Your task to perform on an android device: Check the best rated table lamp on Crate and Barrel Image 0: 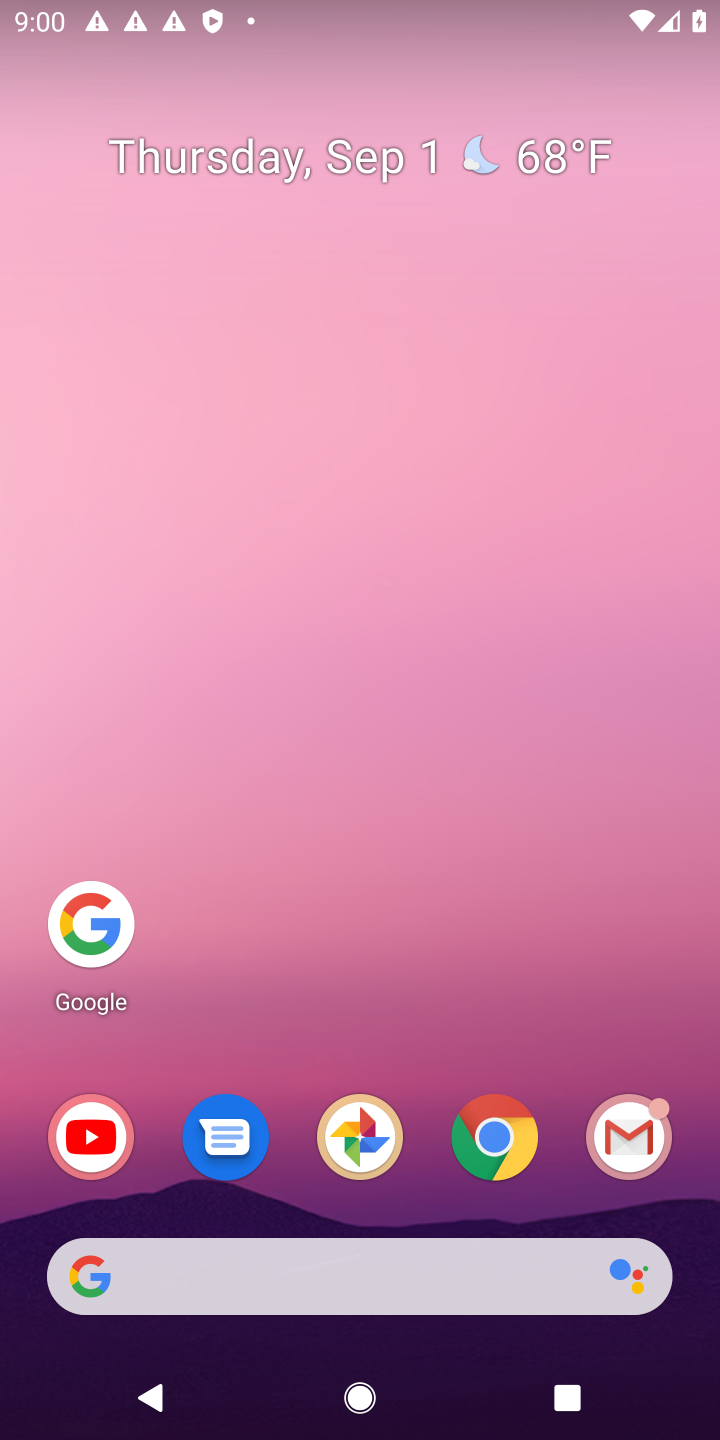
Step 0: click (78, 1279)
Your task to perform on an android device: Check the best rated table lamp on Crate and Barrel Image 1: 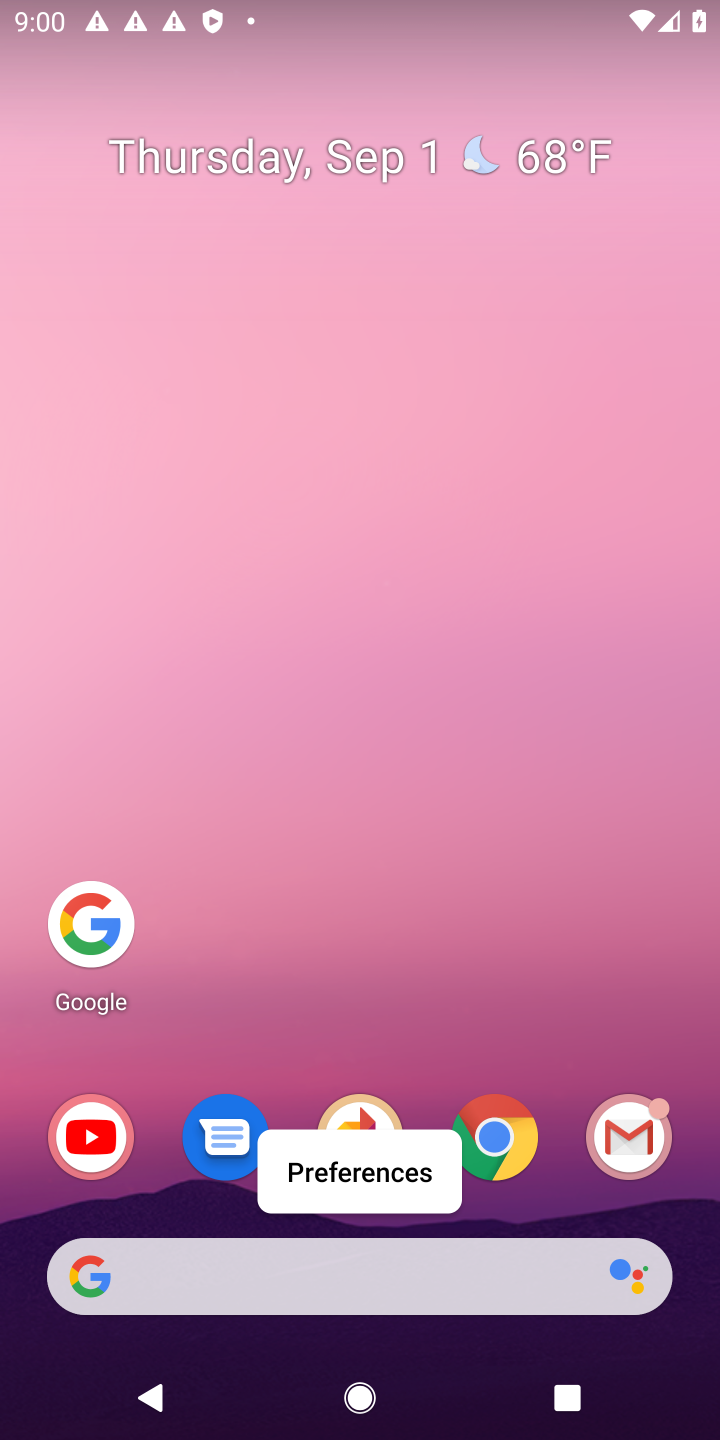
Step 1: click (90, 1263)
Your task to perform on an android device: Check the best rated table lamp on Crate and Barrel Image 2: 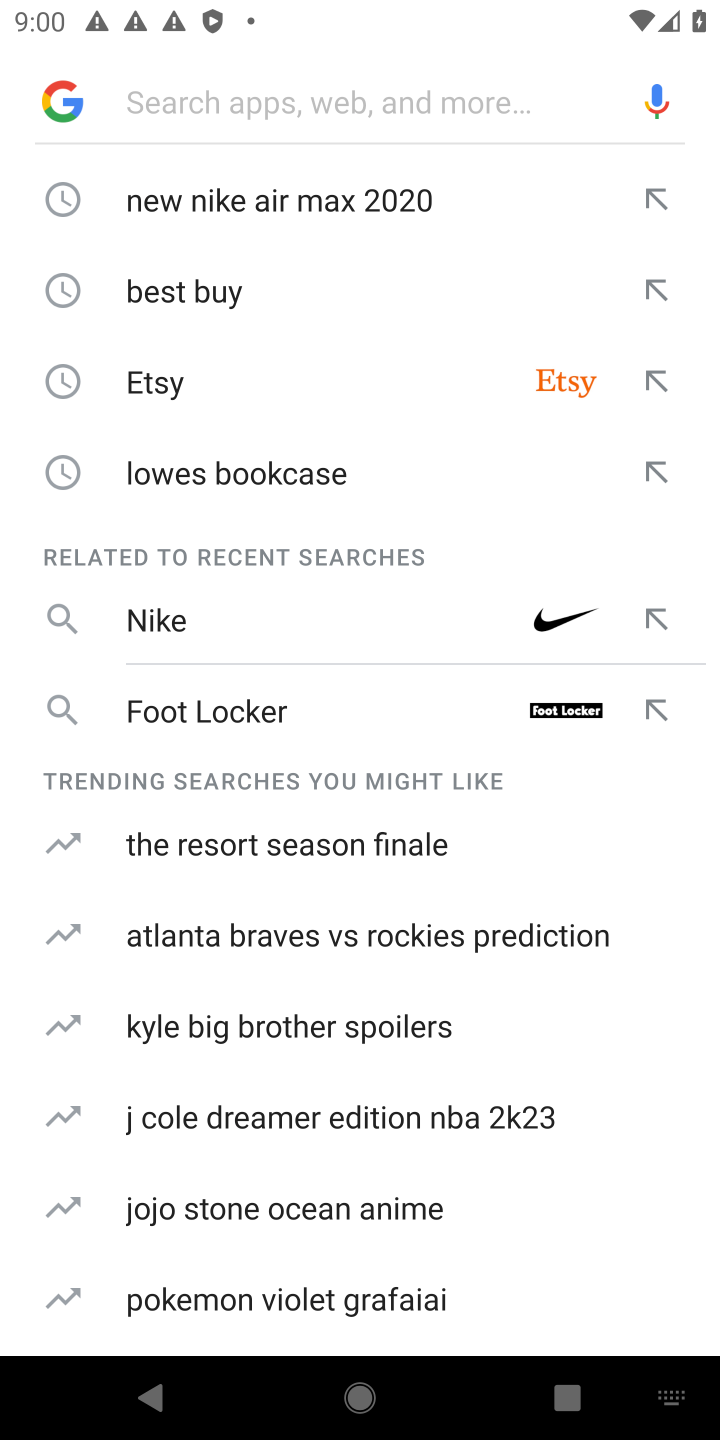
Step 2: type "Crate and Barrel"
Your task to perform on an android device: Check the best rated table lamp on Crate and Barrel Image 3: 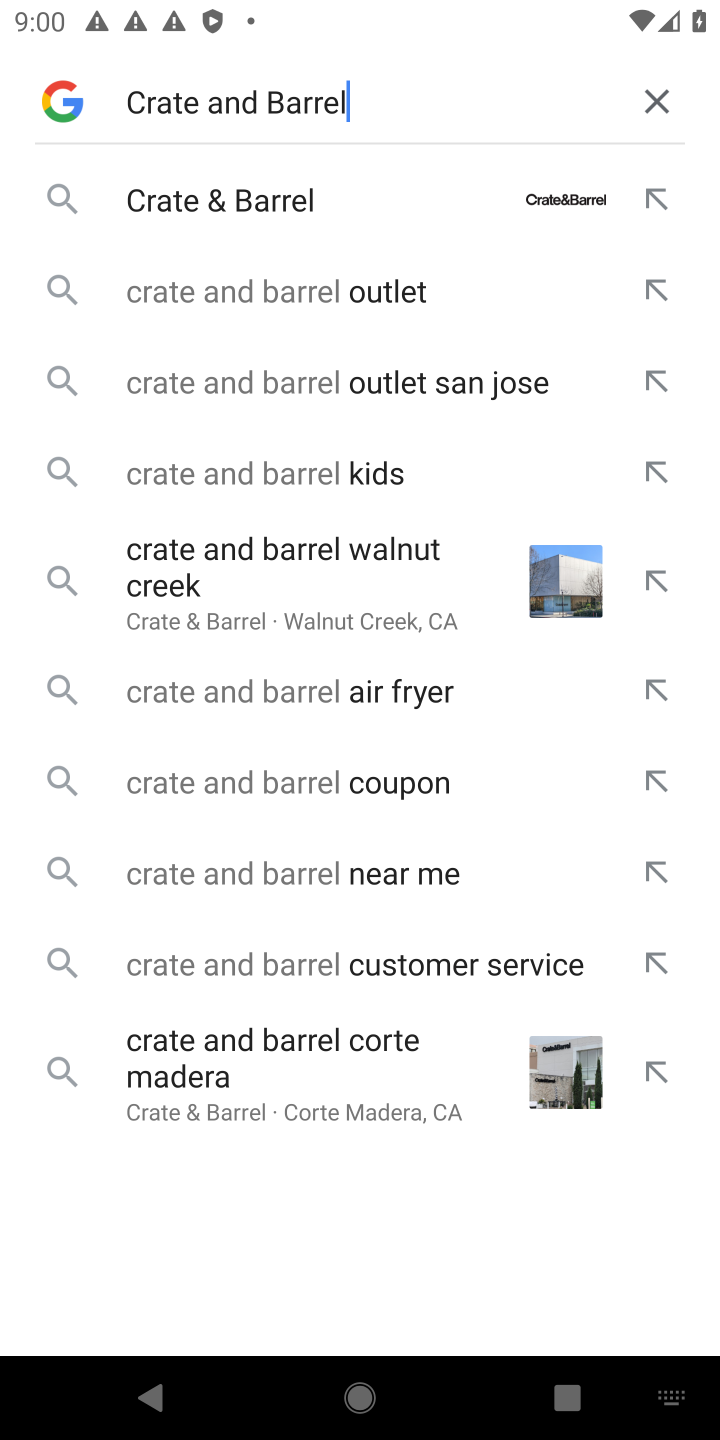
Step 3: click (215, 188)
Your task to perform on an android device: Check the best rated table lamp on Crate and Barrel Image 4: 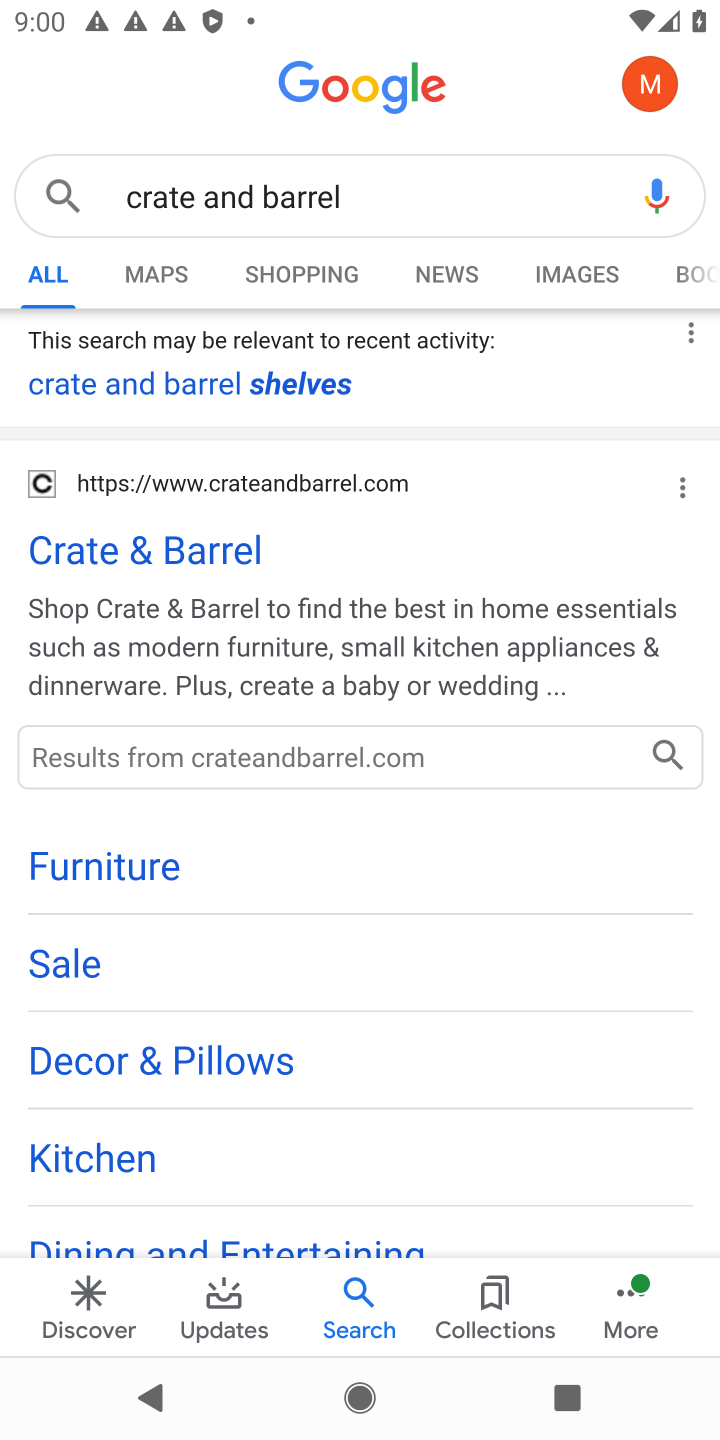
Step 4: click (136, 550)
Your task to perform on an android device: Check the best rated table lamp on Crate and Barrel Image 5: 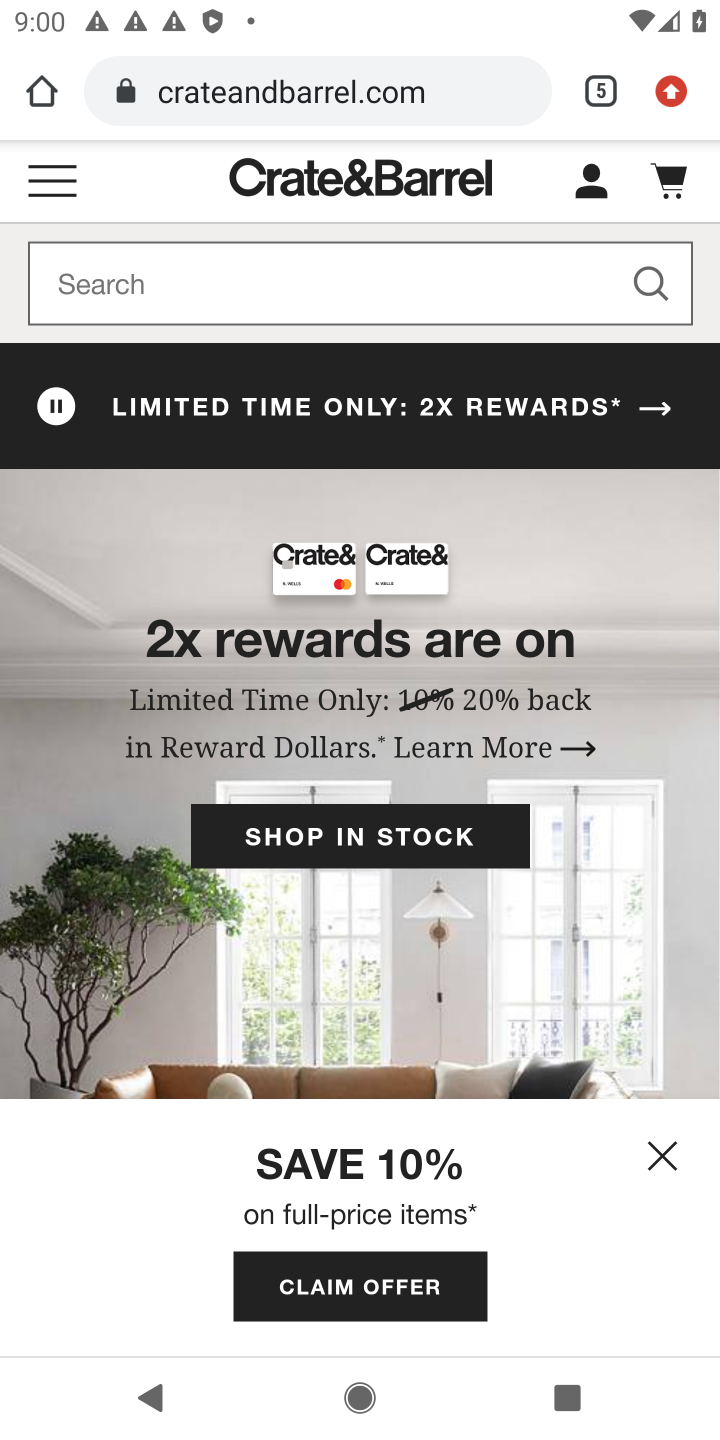
Step 5: click (444, 283)
Your task to perform on an android device: Check the best rated table lamp on Crate and Barrel Image 6: 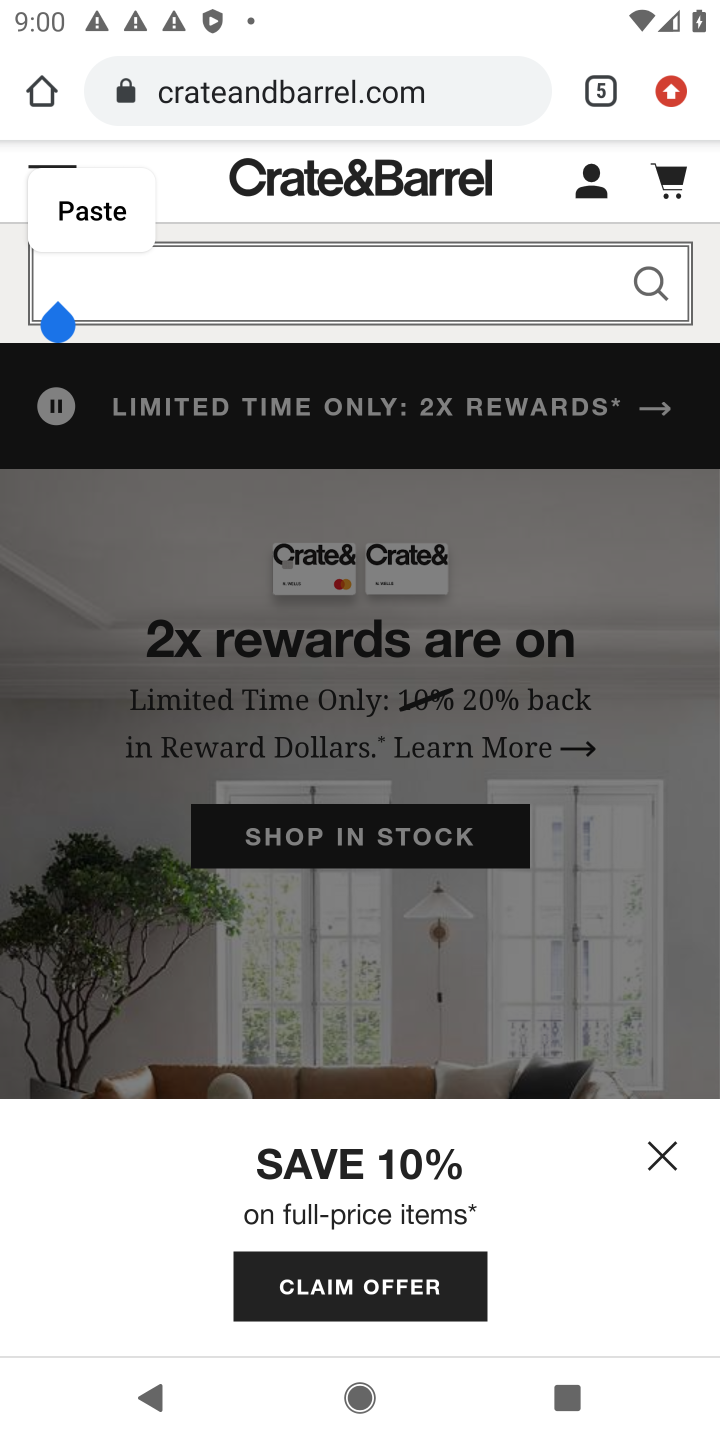
Step 6: type "best rated table lamp"
Your task to perform on an android device: Check the best rated table lamp on Crate and Barrel Image 7: 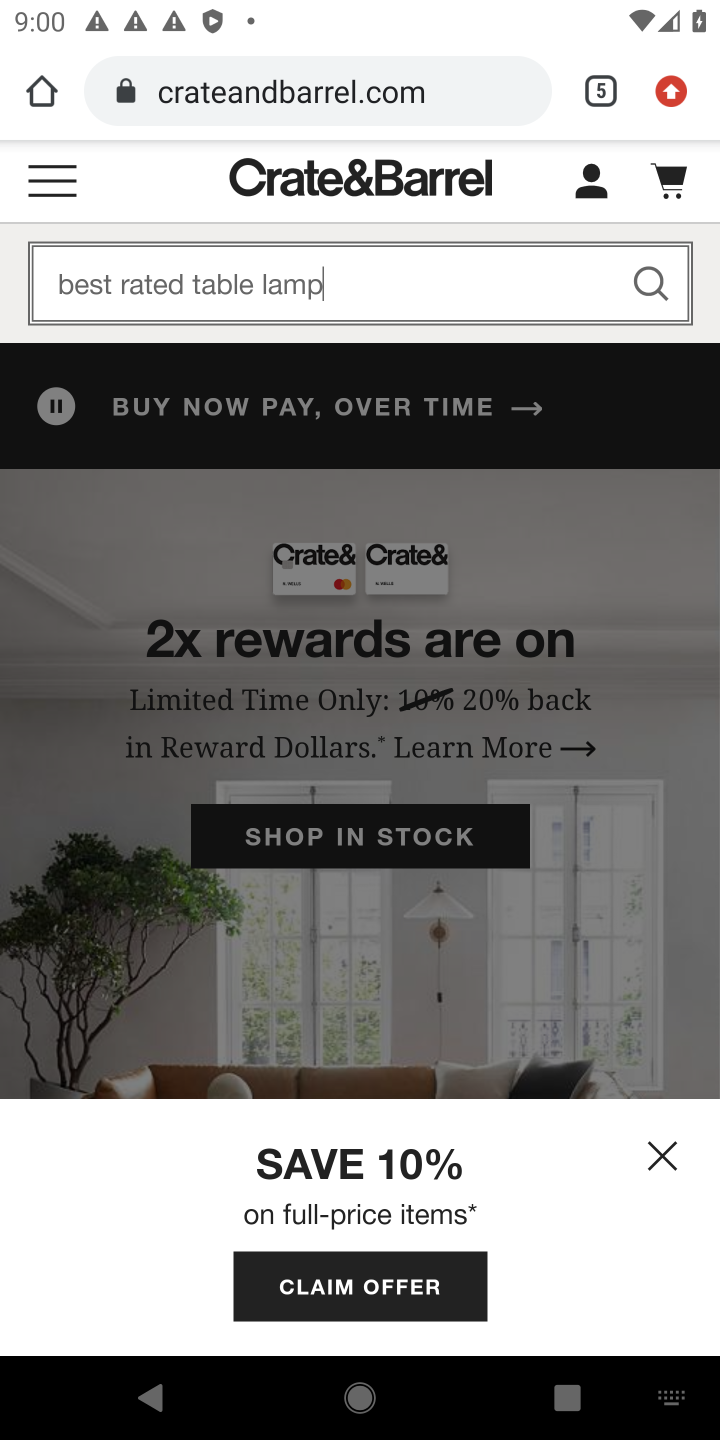
Step 7: click (644, 280)
Your task to perform on an android device: Check the best rated table lamp on Crate and Barrel Image 8: 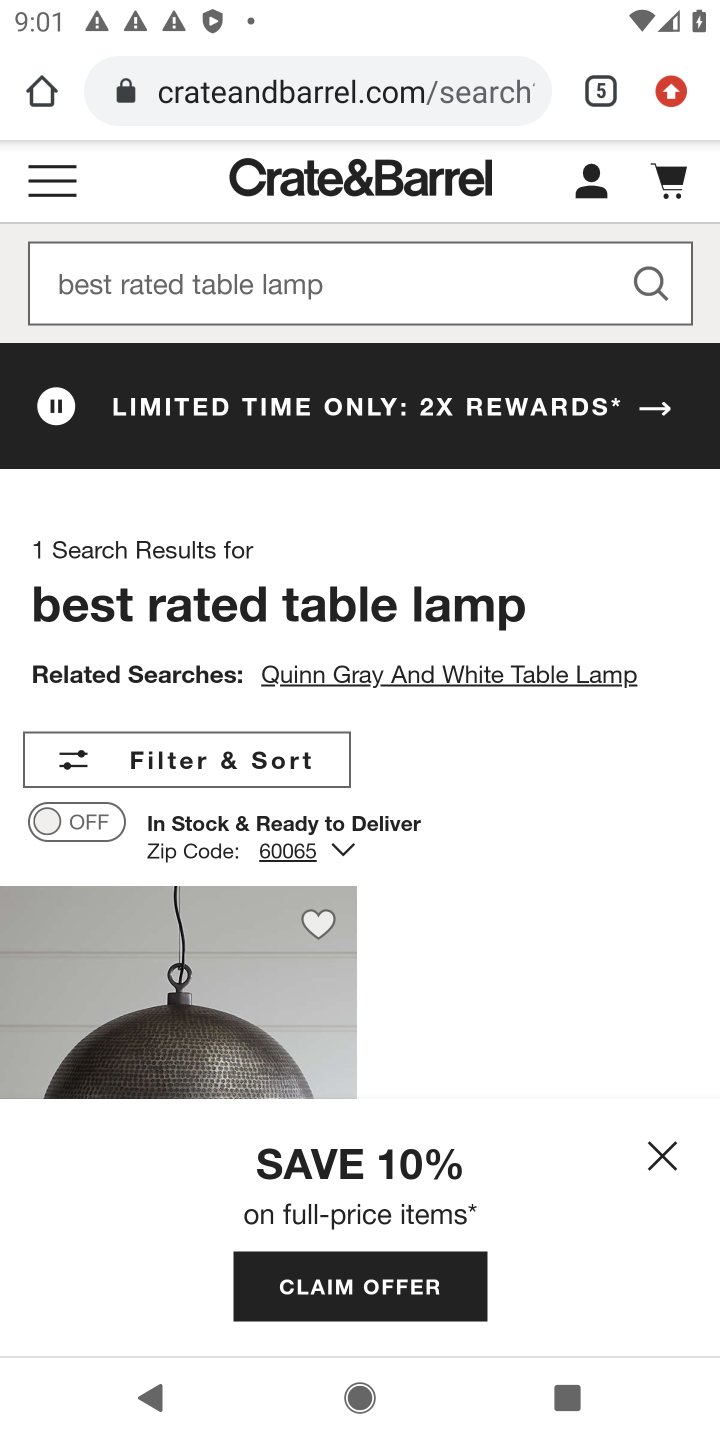
Step 8: click (662, 1161)
Your task to perform on an android device: Check the best rated table lamp on Crate and Barrel Image 9: 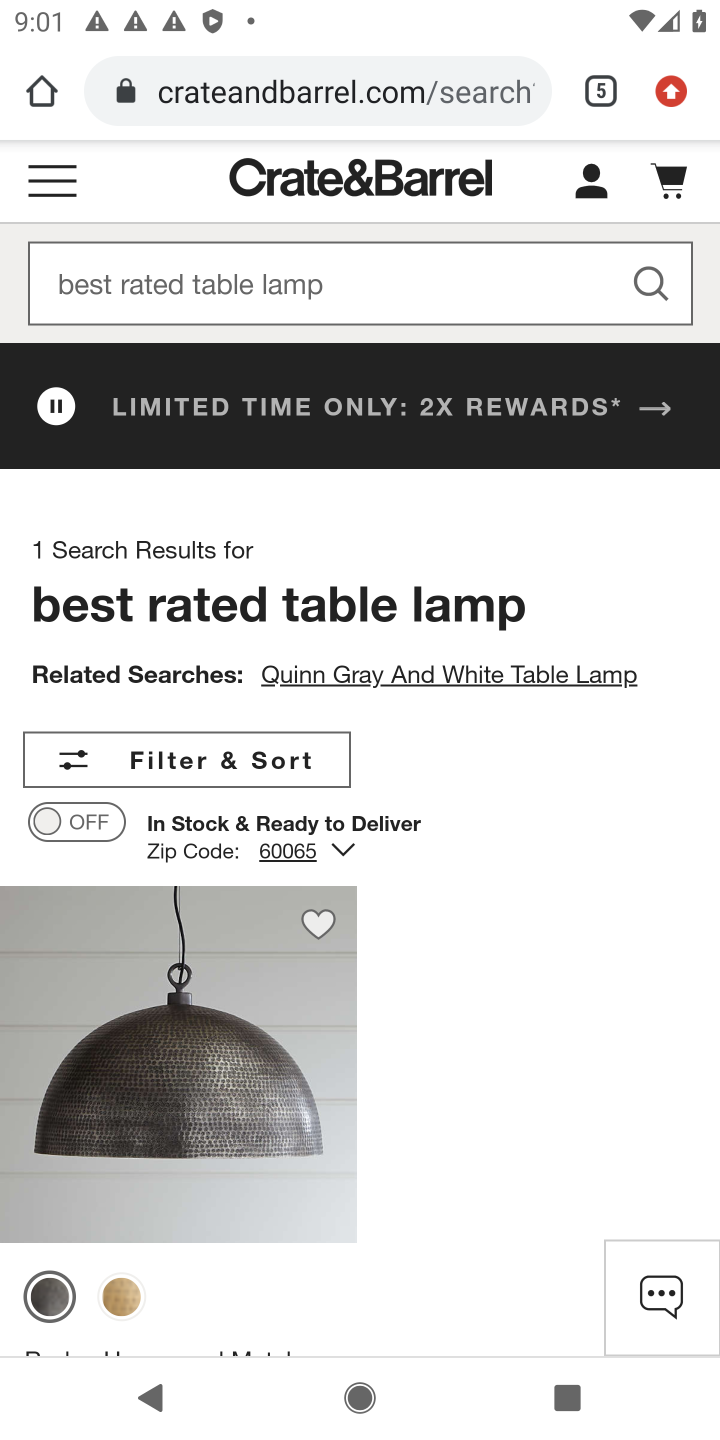
Step 9: task complete